Your task to perform on an android device: Open Youtube and go to the subscriptions tab Image 0: 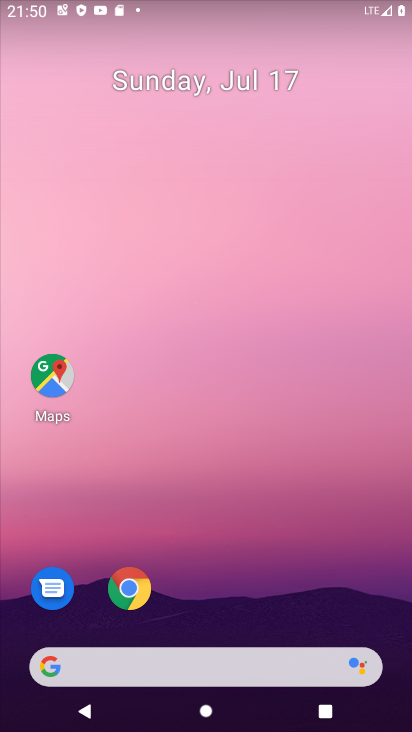
Step 0: press home button
Your task to perform on an android device: Open Youtube and go to the subscriptions tab Image 1: 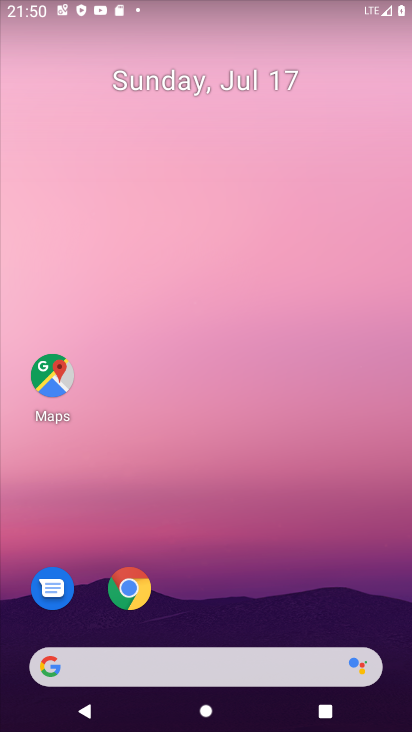
Step 1: drag from (367, 541) to (411, 163)
Your task to perform on an android device: Open Youtube and go to the subscriptions tab Image 2: 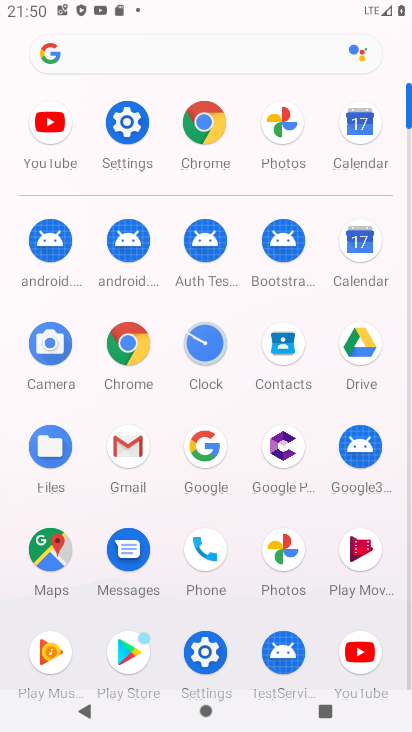
Step 2: click (357, 656)
Your task to perform on an android device: Open Youtube and go to the subscriptions tab Image 3: 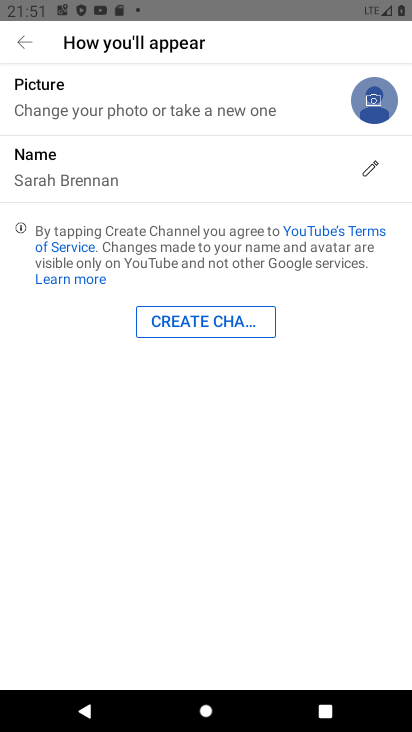
Step 3: click (22, 41)
Your task to perform on an android device: Open Youtube and go to the subscriptions tab Image 4: 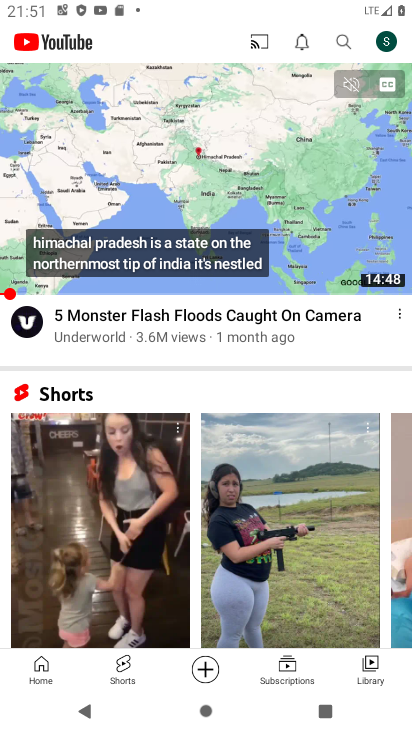
Step 4: click (279, 668)
Your task to perform on an android device: Open Youtube and go to the subscriptions tab Image 5: 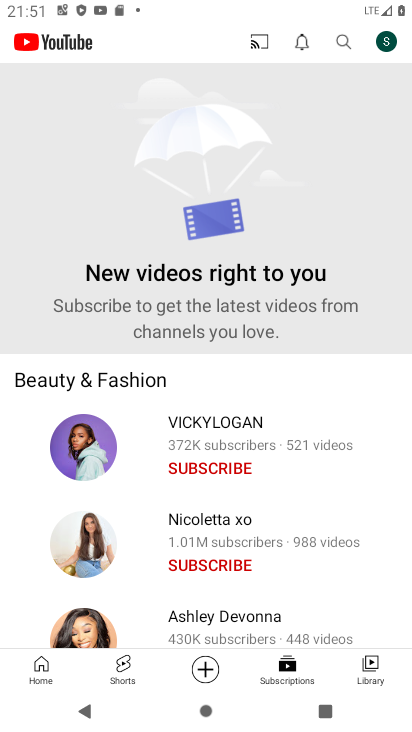
Step 5: task complete